Your task to perform on an android device: turn off sleep mode Image 0: 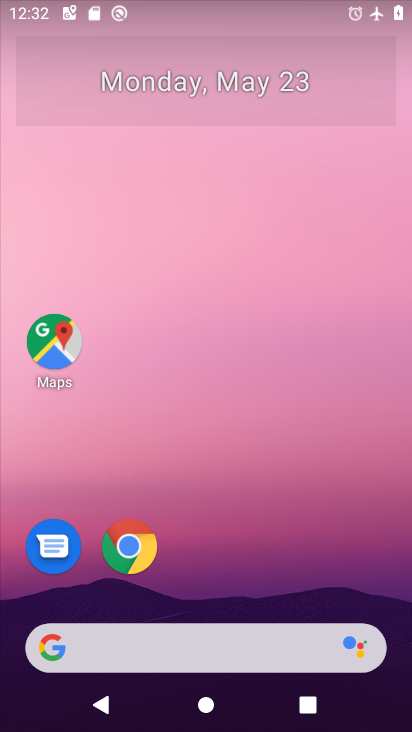
Step 0: drag from (218, 619) to (304, 167)
Your task to perform on an android device: turn off sleep mode Image 1: 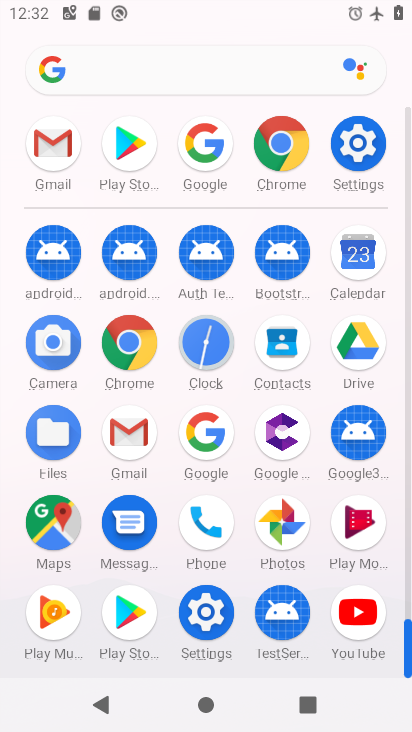
Step 1: click (369, 155)
Your task to perform on an android device: turn off sleep mode Image 2: 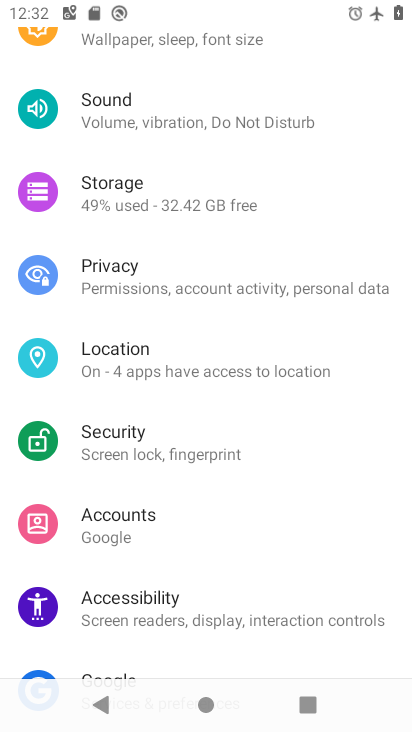
Step 2: drag from (203, 231) to (155, 573)
Your task to perform on an android device: turn off sleep mode Image 3: 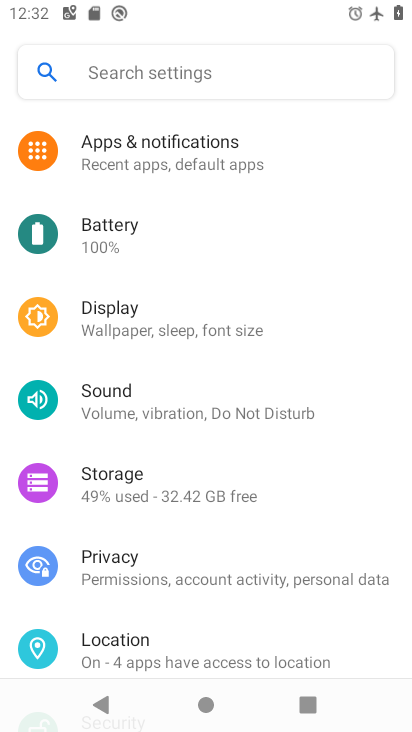
Step 3: click (213, 333)
Your task to perform on an android device: turn off sleep mode Image 4: 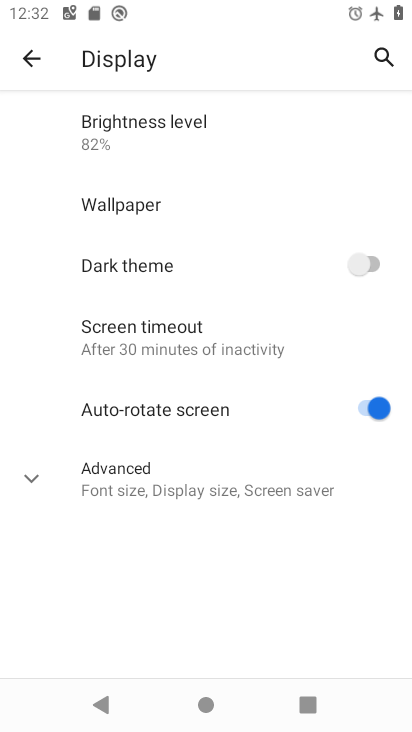
Step 4: click (201, 476)
Your task to perform on an android device: turn off sleep mode Image 5: 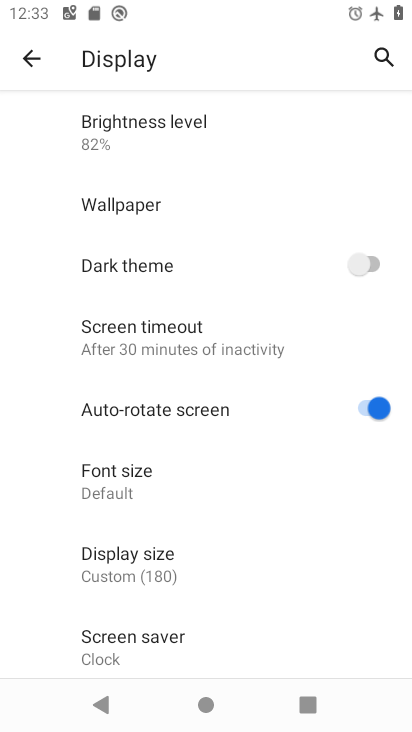
Step 5: task complete